Your task to perform on an android device: open a bookmark in the chrome app Image 0: 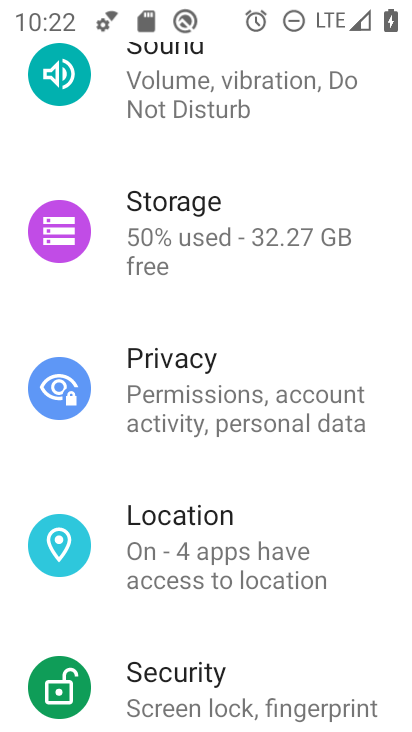
Step 0: press home button
Your task to perform on an android device: open a bookmark in the chrome app Image 1: 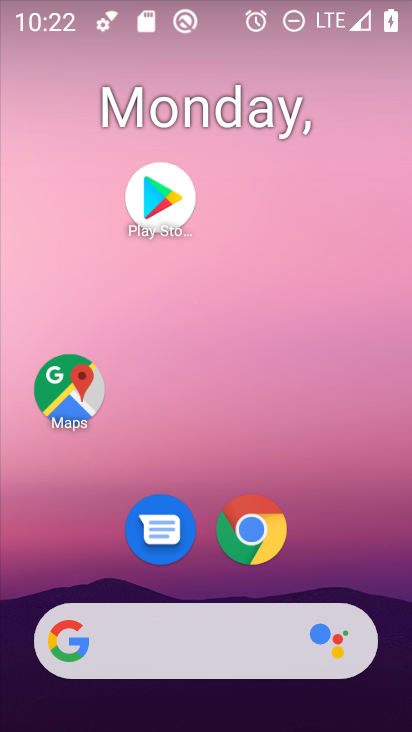
Step 1: click (255, 528)
Your task to perform on an android device: open a bookmark in the chrome app Image 2: 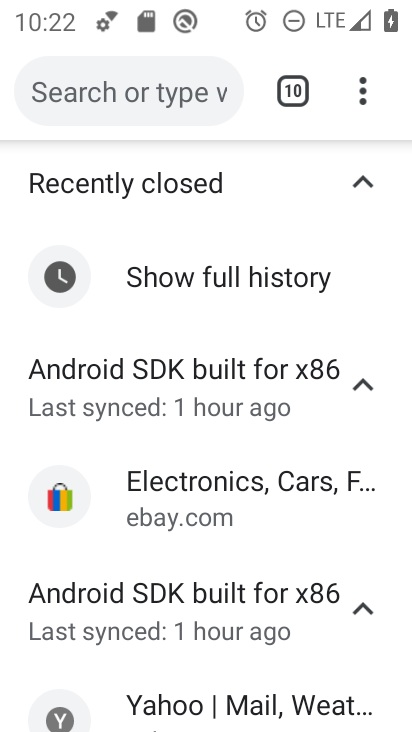
Step 2: click (361, 91)
Your task to perform on an android device: open a bookmark in the chrome app Image 3: 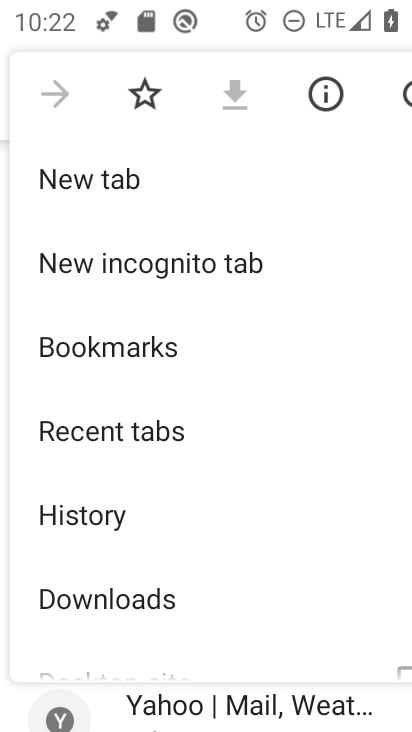
Step 3: click (136, 350)
Your task to perform on an android device: open a bookmark in the chrome app Image 4: 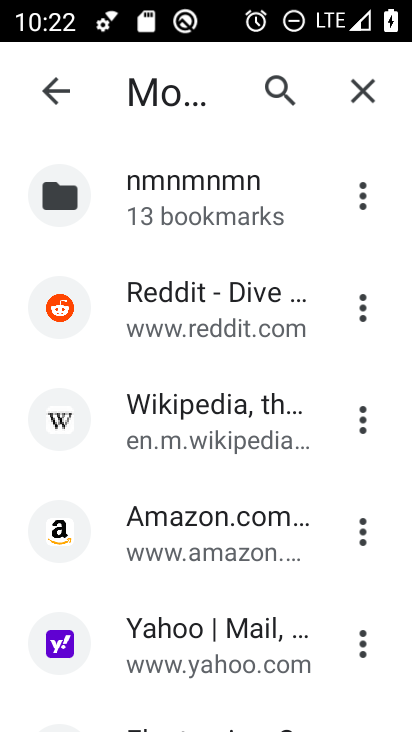
Step 4: task complete